Your task to perform on an android device: Open Wikipedia Image 0: 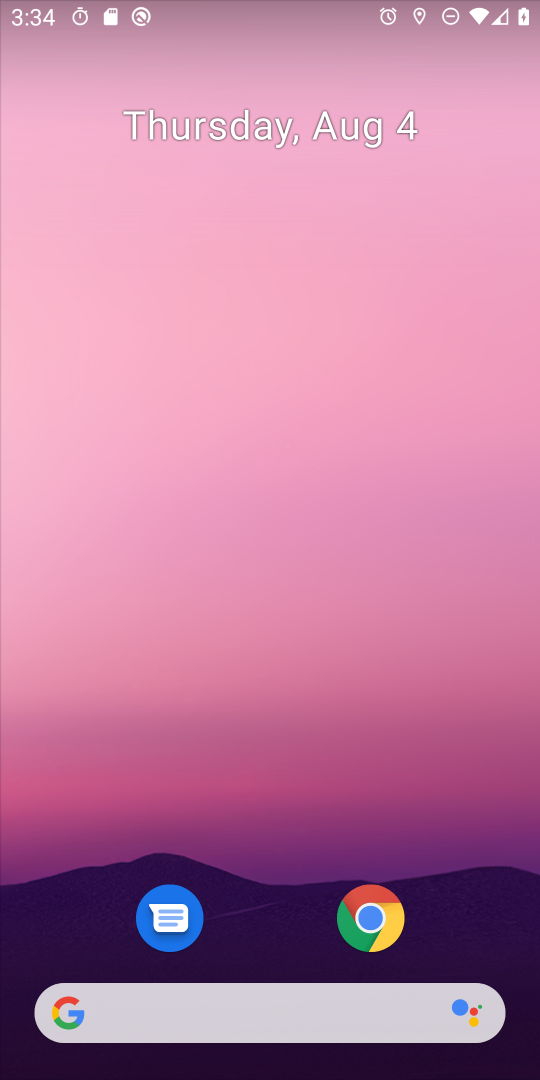
Step 0: click (371, 918)
Your task to perform on an android device: Open Wikipedia Image 1: 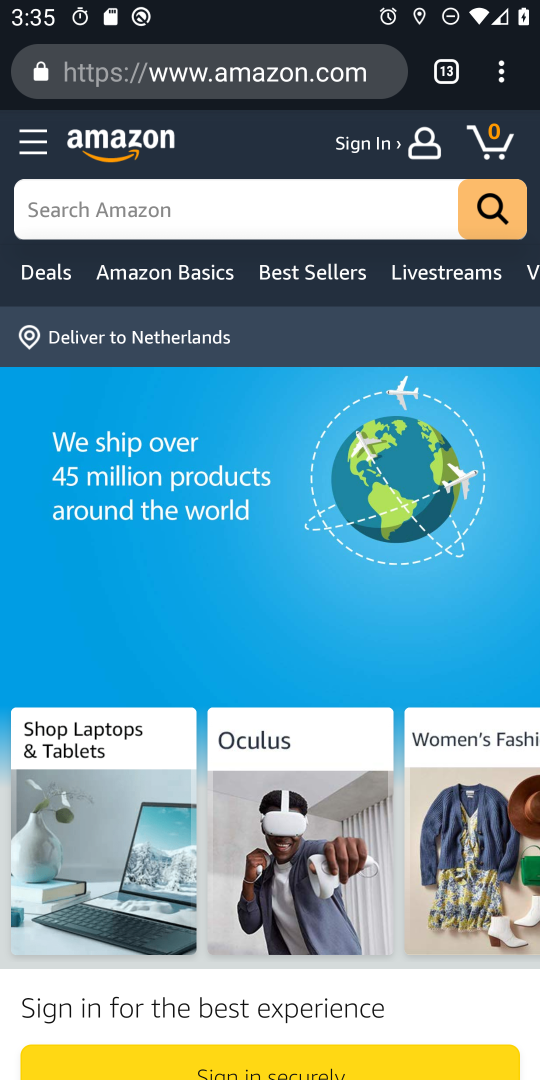
Step 1: click (460, 86)
Your task to perform on an android device: Open Wikipedia Image 2: 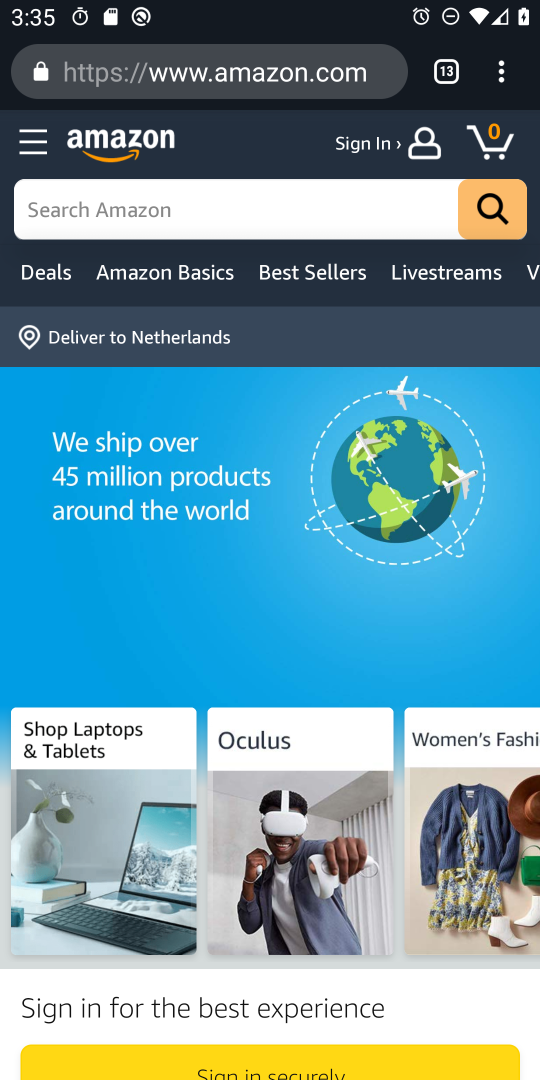
Step 2: click (460, 86)
Your task to perform on an android device: Open Wikipedia Image 3: 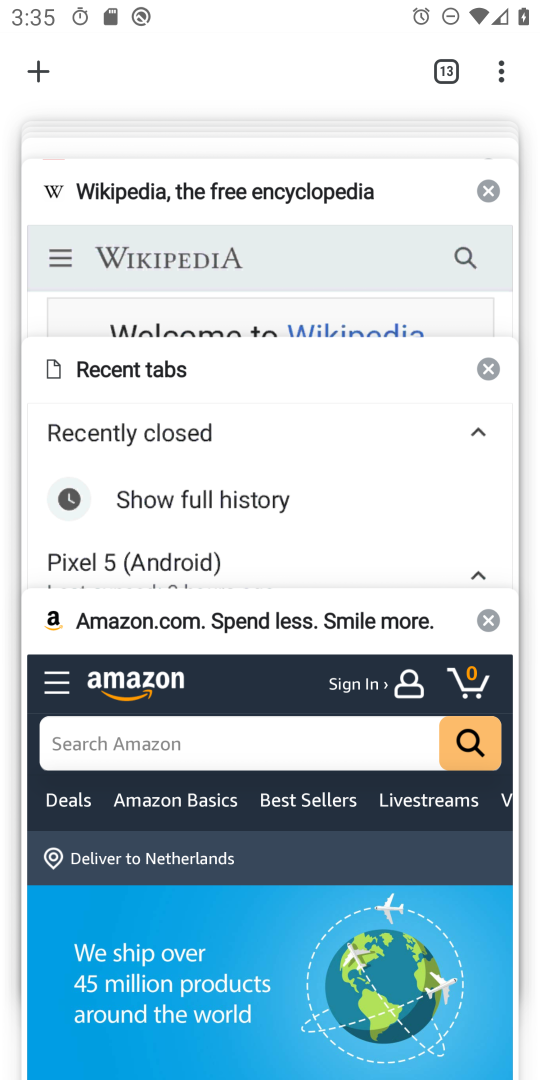
Step 3: click (139, 202)
Your task to perform on an android device: Open Wikipedia Image 4: 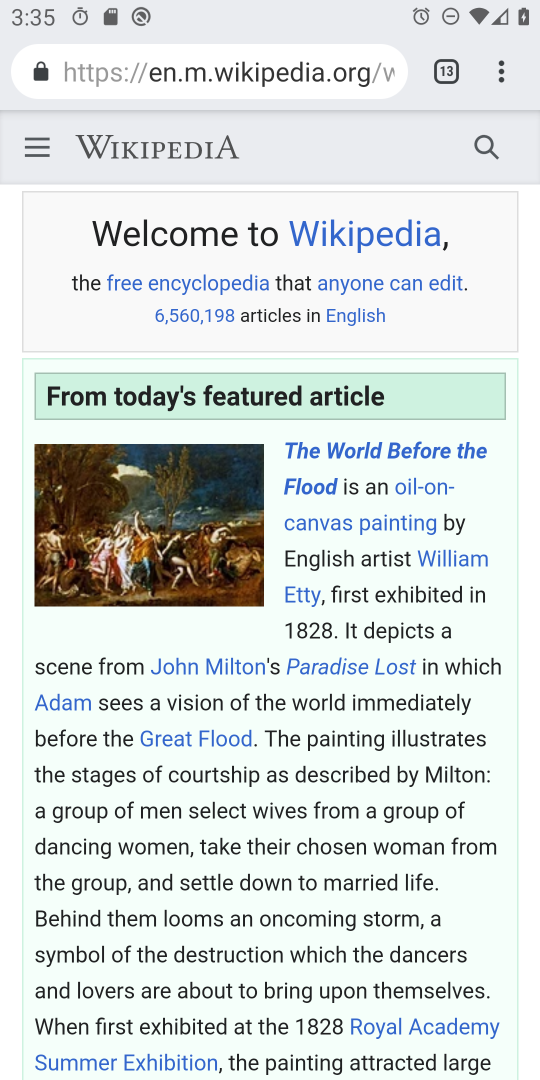
Step 4: task complete